Your task to perform on an android device: turn off location Image 0: 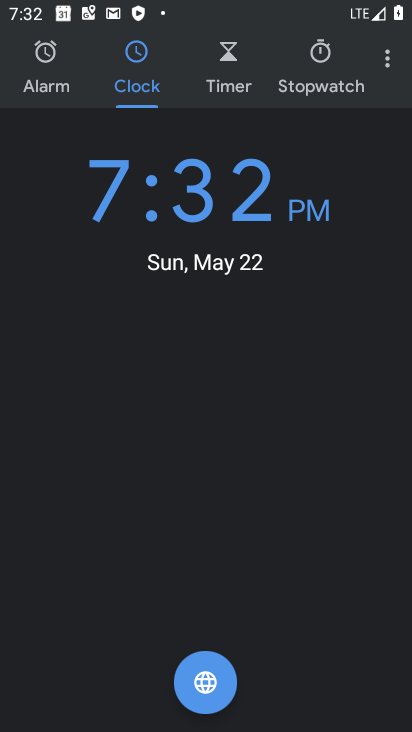
Step 0: press home button
Your task to perform on an android device: turn off location Image 1: 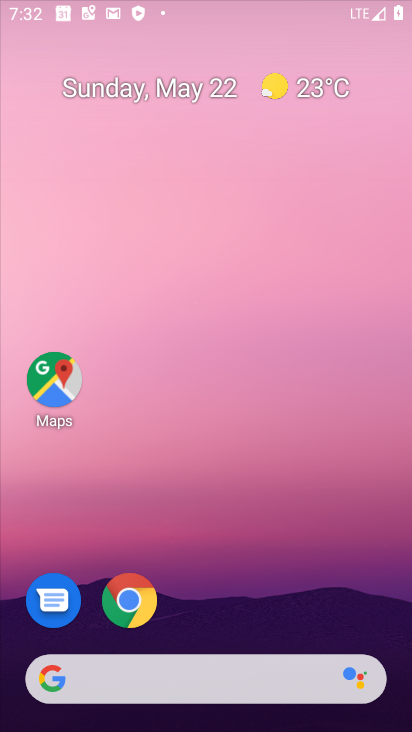
Step 1: drag from (363, 604) to (285, 50)
Your task to perform on an android device: turn off location Image 2: 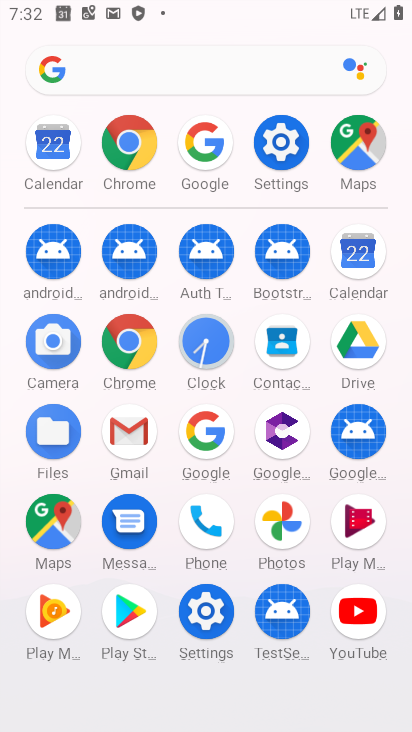
Step 2: click (286, 156)
Your task to perform on an android device: turn off location Image 3: 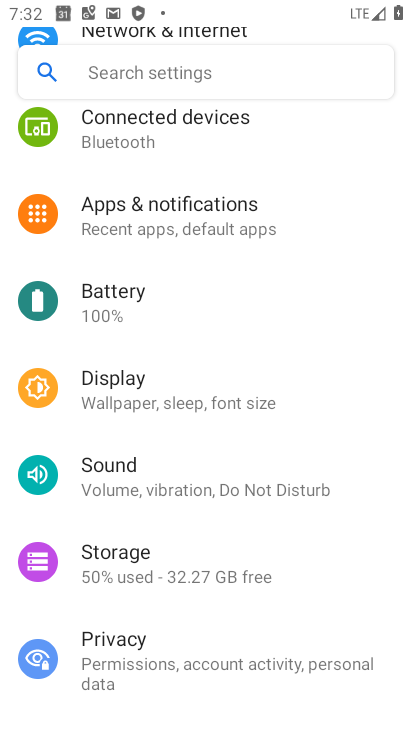
Step 3: drag from (149, 540) to (213, 196)
Your task to perform on an android device: turn off location Image 4: 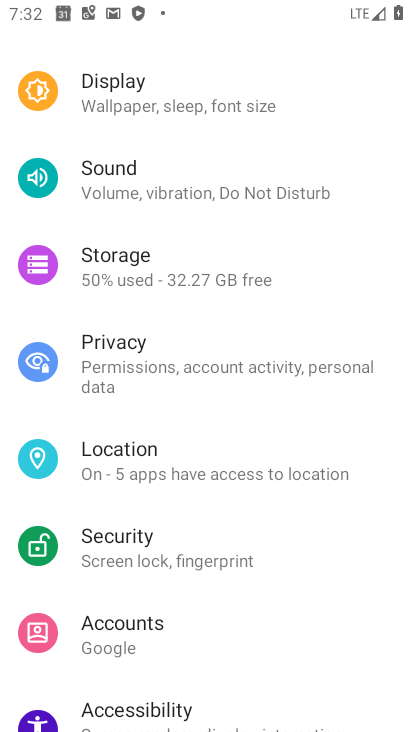
Step 4: click (144, 472)
Your task to perform on an android device: turn off location Image 5: 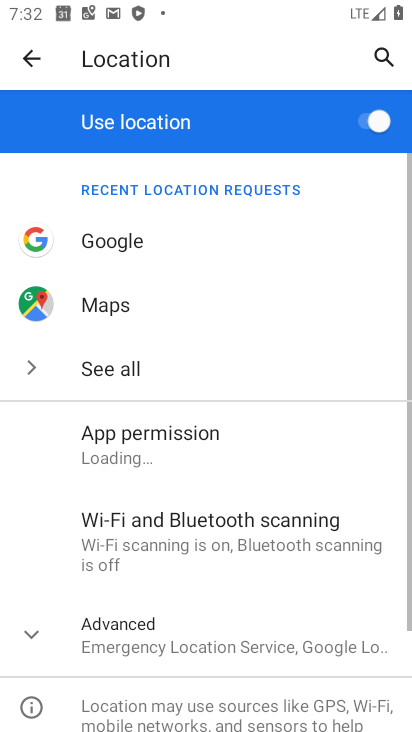
Step 5: click (355, 114)
Your task to perform on an android device: turn off location Image 6: 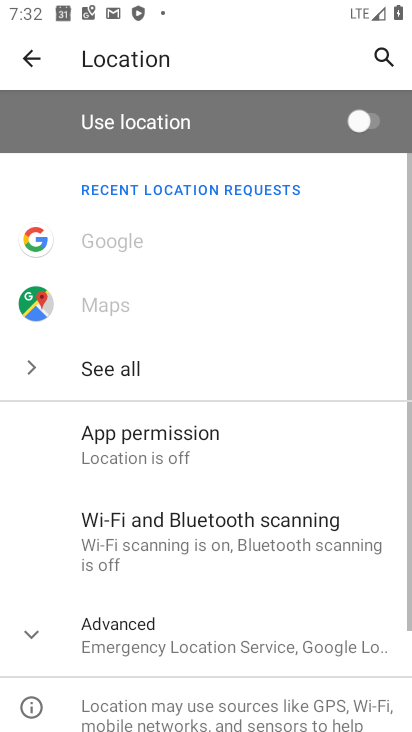
Step 6: task complete